Your task to perform on an android device: change the upload size in google photos Image 0: 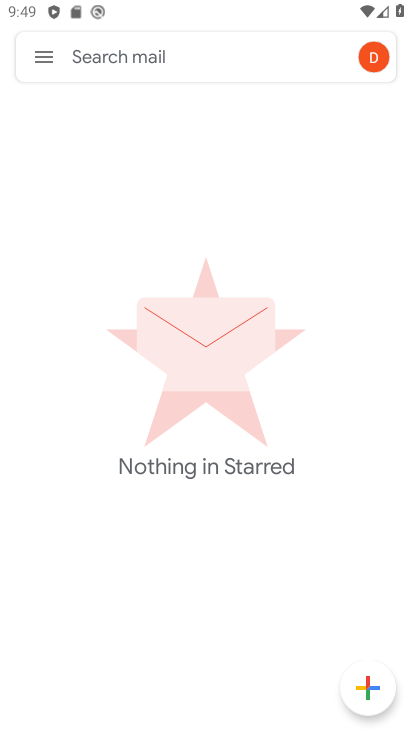
Step 0: press home button
Your task to perform on an android device: change the upload size in google photos Image 1: 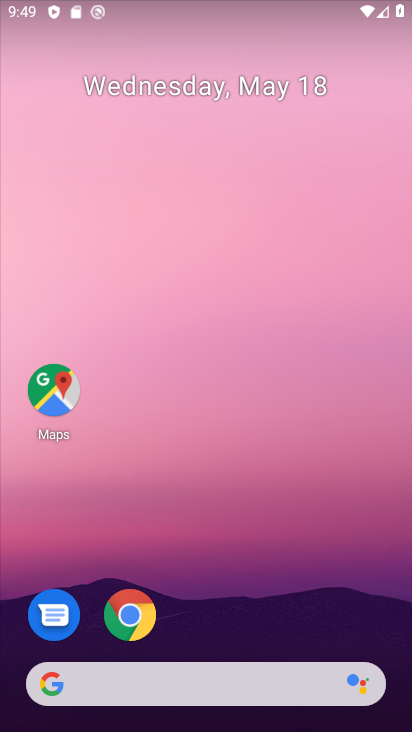
Step 1: drag from (223, 678) to (171, 175)
Your task to perform on an android device: change the upload size in google photos Image 2: 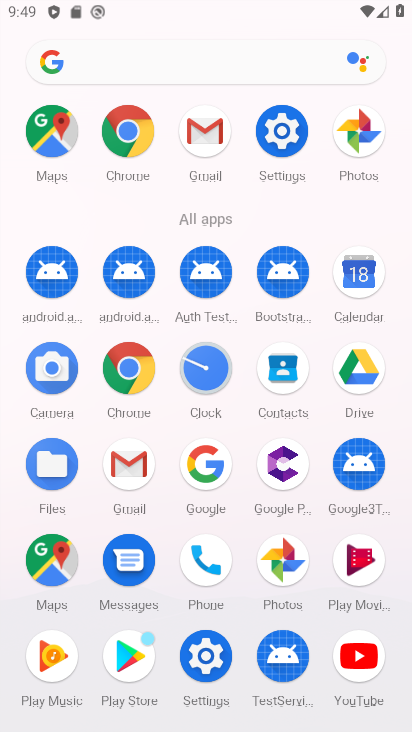
Step 2: click (288, 565)
Your task to perform on an android device: change the upload size in google photos Image 3: 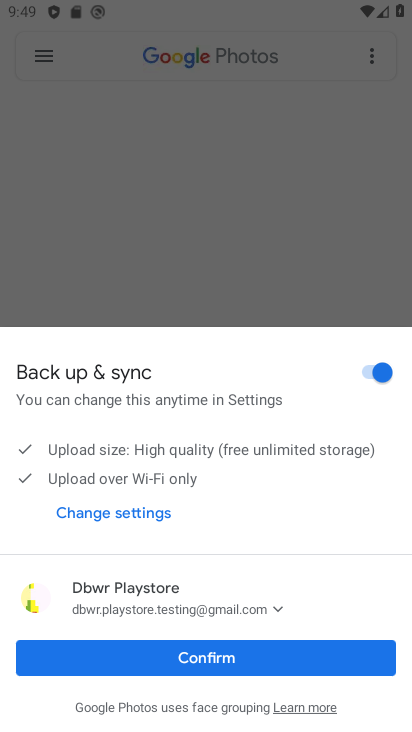
Step 3: click (214, 663)
Your task to perform on an android device: change the upload size in google photos Image 4: 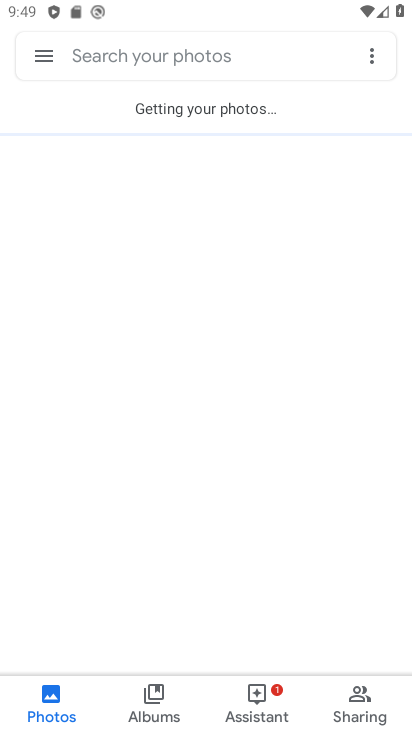
Step 4: click (41, 57)
Your task to perform on an android device: change the upload size in google photos Image 5: 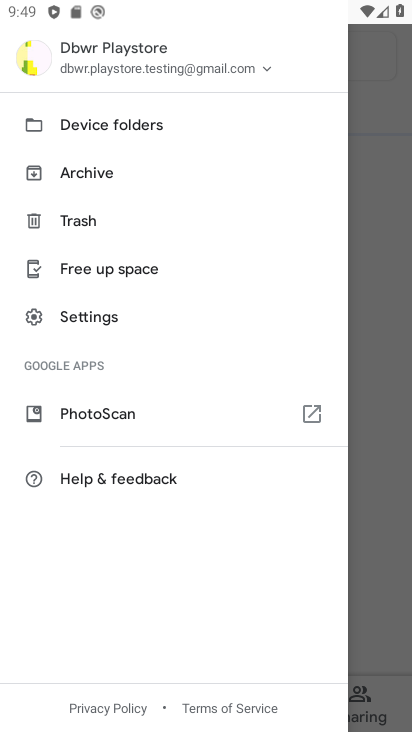
Step 5: click (76, 313)
Your task to perform on an android device: change the upload size in google photos Image 6: 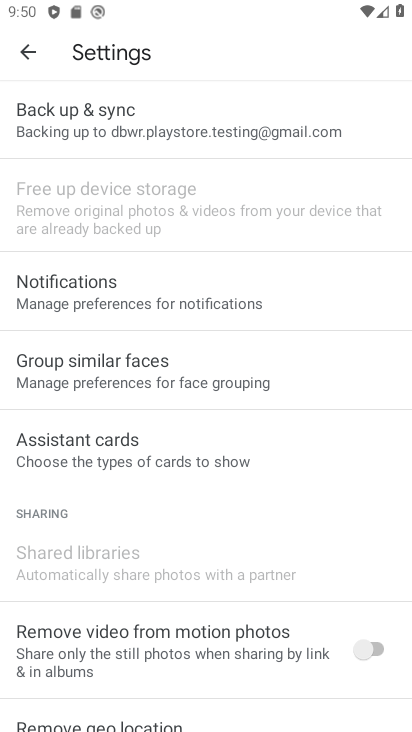
Step 6: click (69, 123)
Your task to perform on an android device: change the upload size in google photos Image 7: 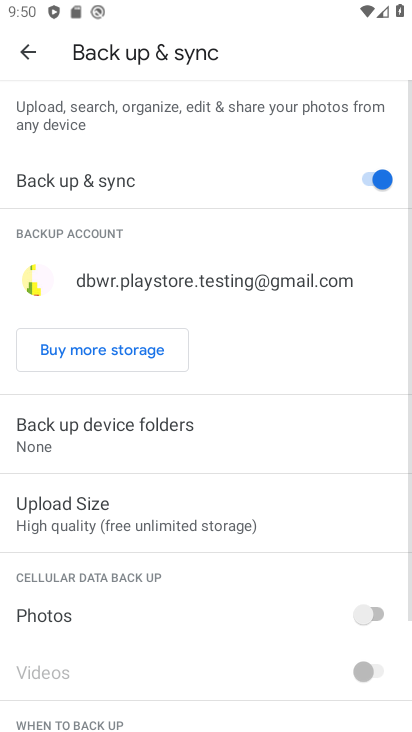
Step 7: drag from (97, 715) to (90, 319)
Your task to perform on an android device: change the upload size in google photos Image 8: 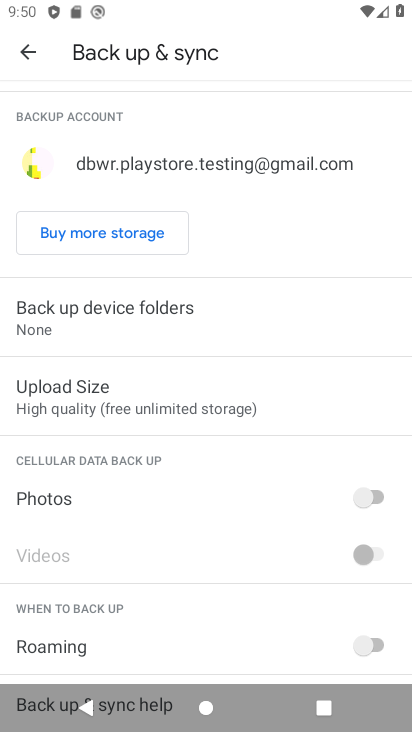
Step 8: click (67, 412)
Your task to perform on an android device: change the upload size in google photos Image 9: 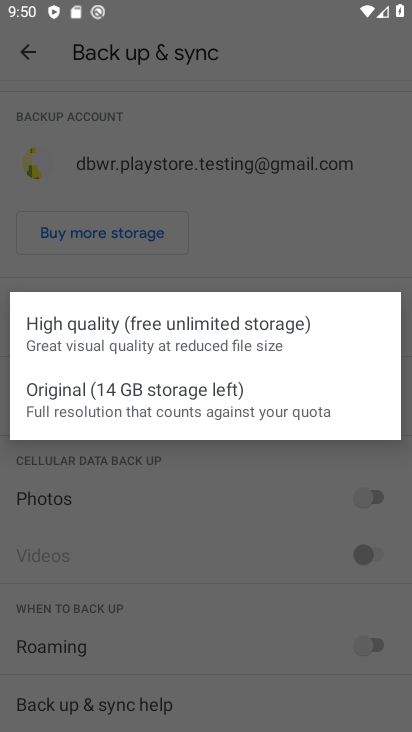
Step 9: click (75, 384)
Your task to perform on an android device: change the upload size in google photos Image 10: 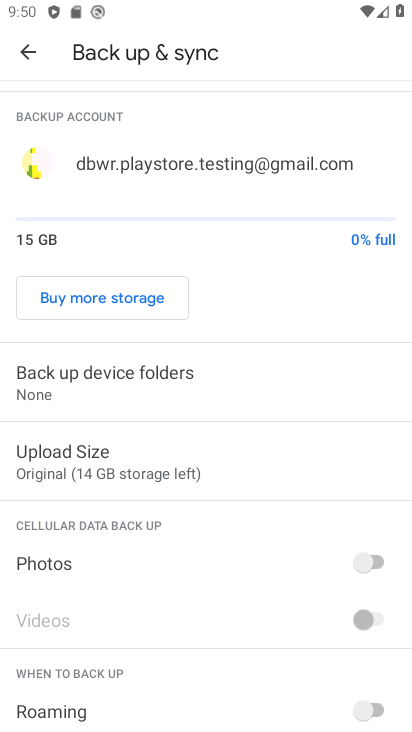
Step 10: task complete